Your task to perform on an android device: manage bookmarks in the chrome app Image 0: 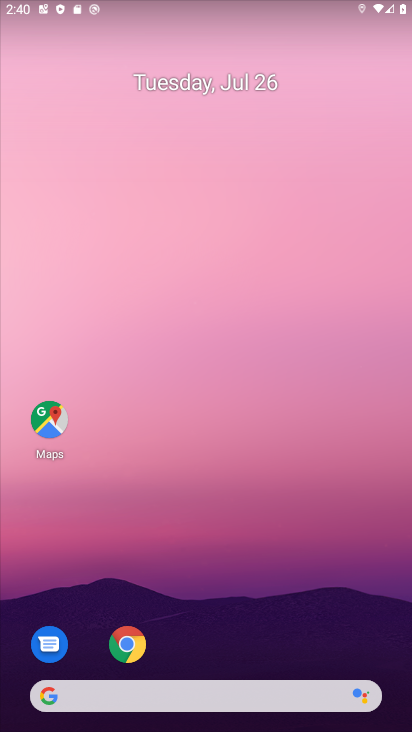
Step 0: press home button
Your task to perform on an android device: manage bookmarks in the chrome app Image 1: 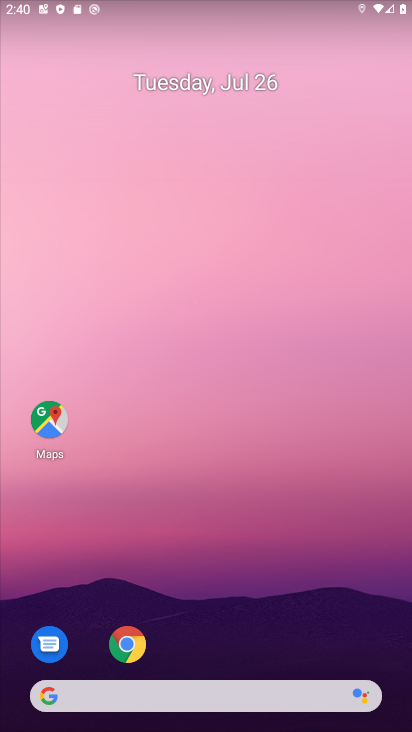
Step 1: click (140, 648)
Your task to perform on an android device: manage bookmarks in the chrome app Image 2: 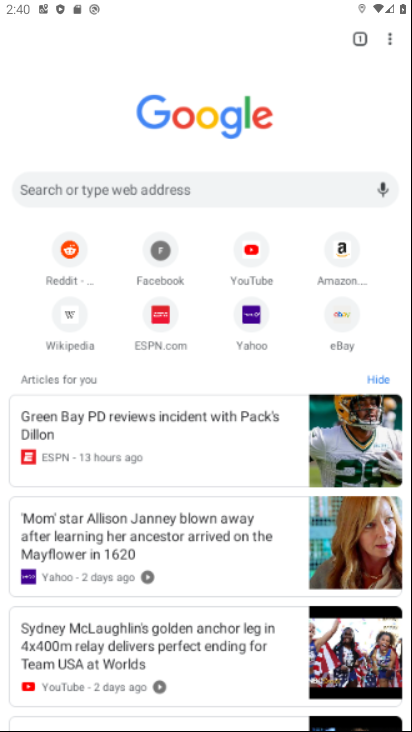
Step 2: click (394, 39)
Your task to perform on an android device: manage bookmarks in the chrome app Image 3: 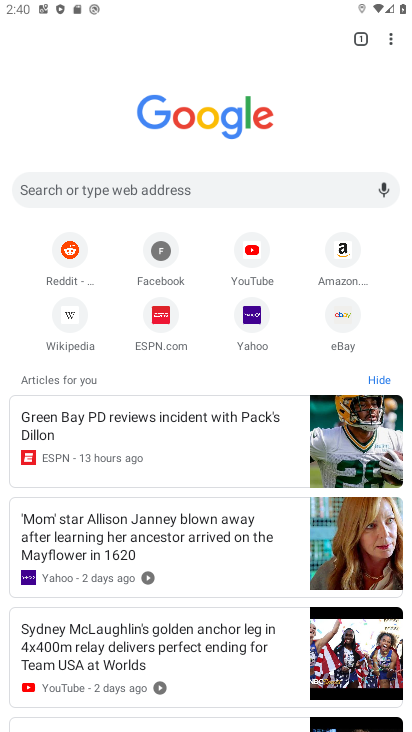
Step 3: click (387, 36)
Your task to perform on an android device: manage bookmarks in the chrome app Image 4: 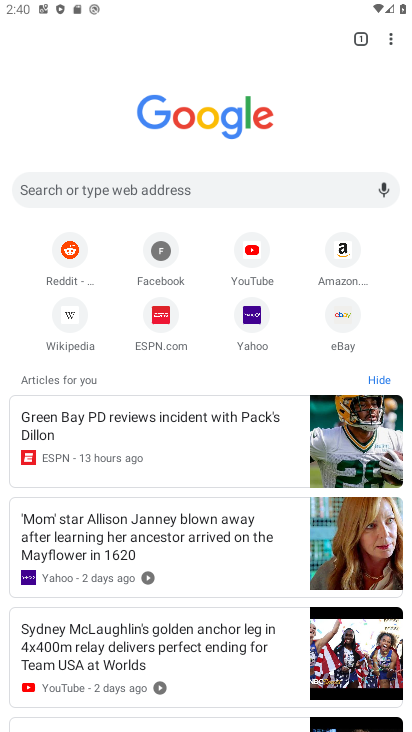
Step 4: task complete